Your task to perform on an android device: Search for Italian restaurants on Maps Image 0: 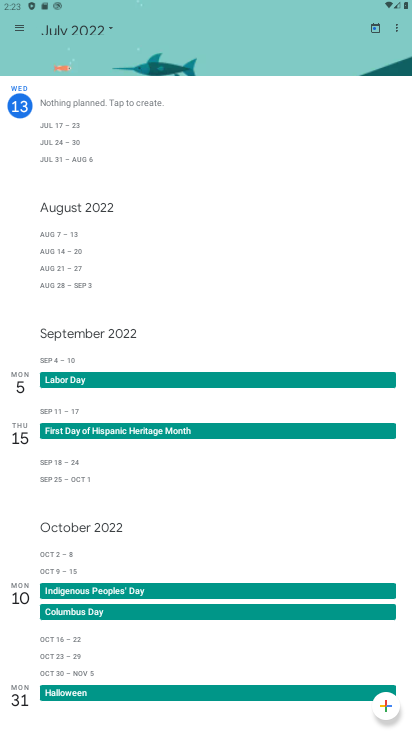
Step 0: press home button
Your task to perform on an android device: Search for Italian restaurants on Maps Image 1: 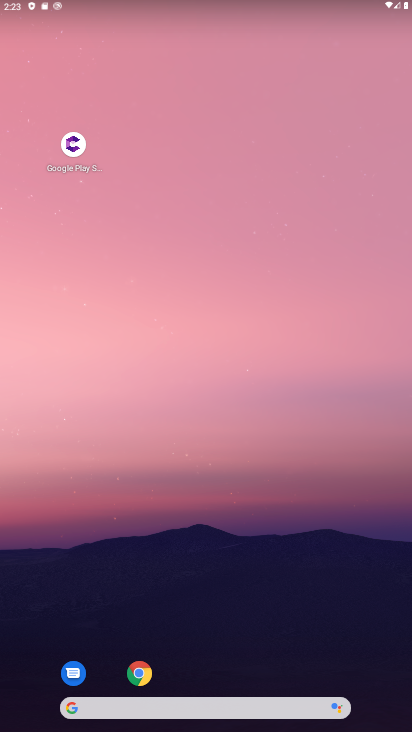
Step 1: drag from (192, 705) to (232, 125)
Your task to perform on an android device: Search for Italian restaurants on Maps Image 2: 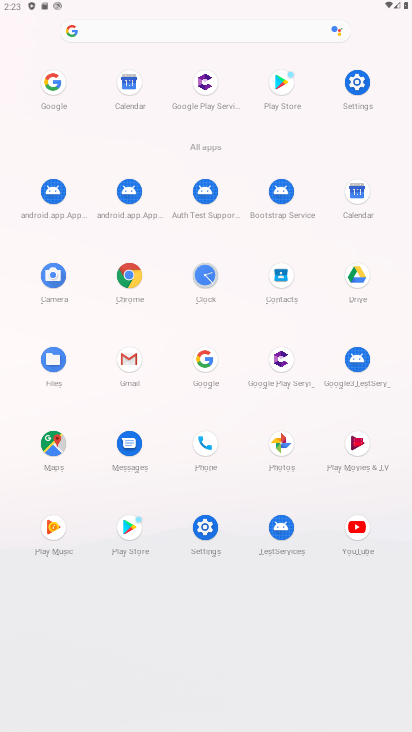
Step 2: click (55, 443)
Your task to perform on an android device: Search for Italian restaurants on Maps Image 3: 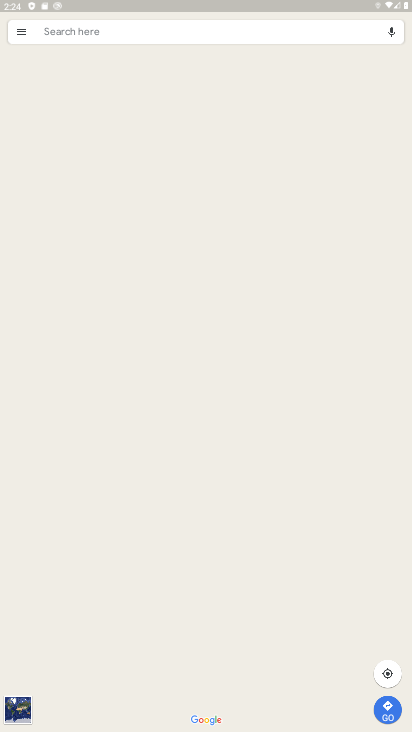
Step 3: click (205, 28)
Your task to perform on an android device: Search for Italian restaurants on Maps Image 4: 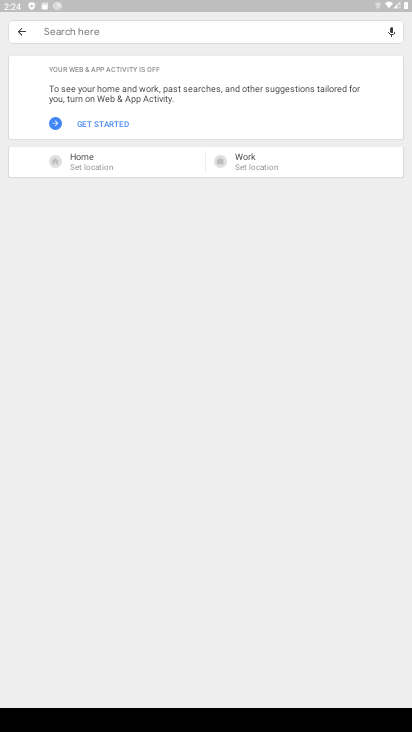
Step 4: type "Italian restaurants"
Your task to perform on an android device: Search for Italian restaurants on Maps Image 5: 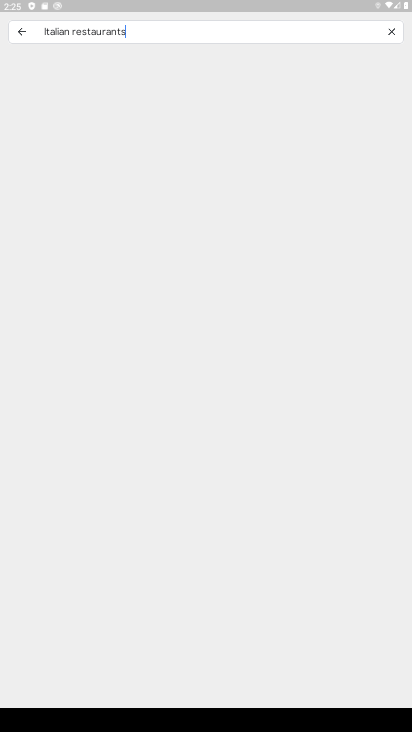
Step 5: task complete